Your task to perform on an android device: open app "Pluto TV - Live TV and Movies" (install if not already installed), go to login, and select forgot password Image 0: 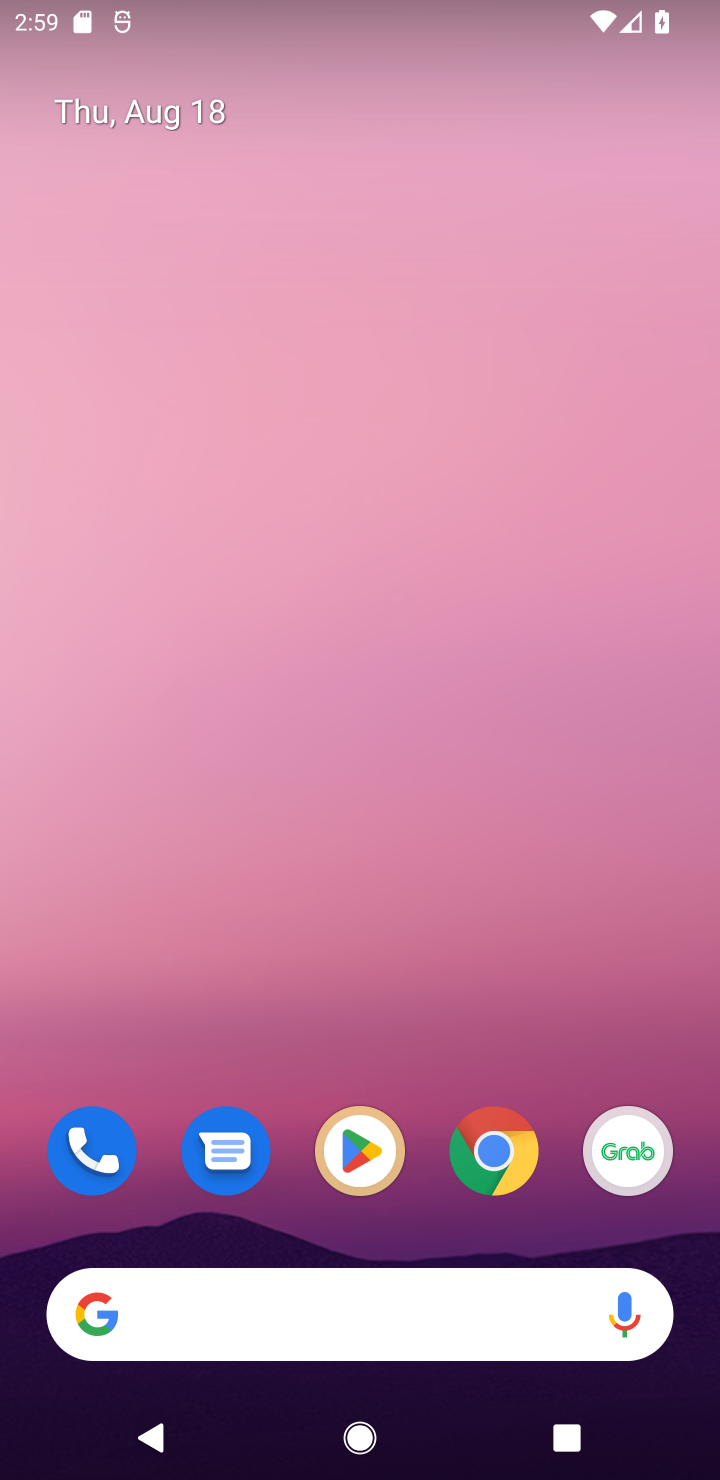
Step 0: click (356, 1283)
Your task to perform on an android device: open app "Pluto TV - Live TV and Movies" (install if not already installed), go to login, and select forgot password Image 1: 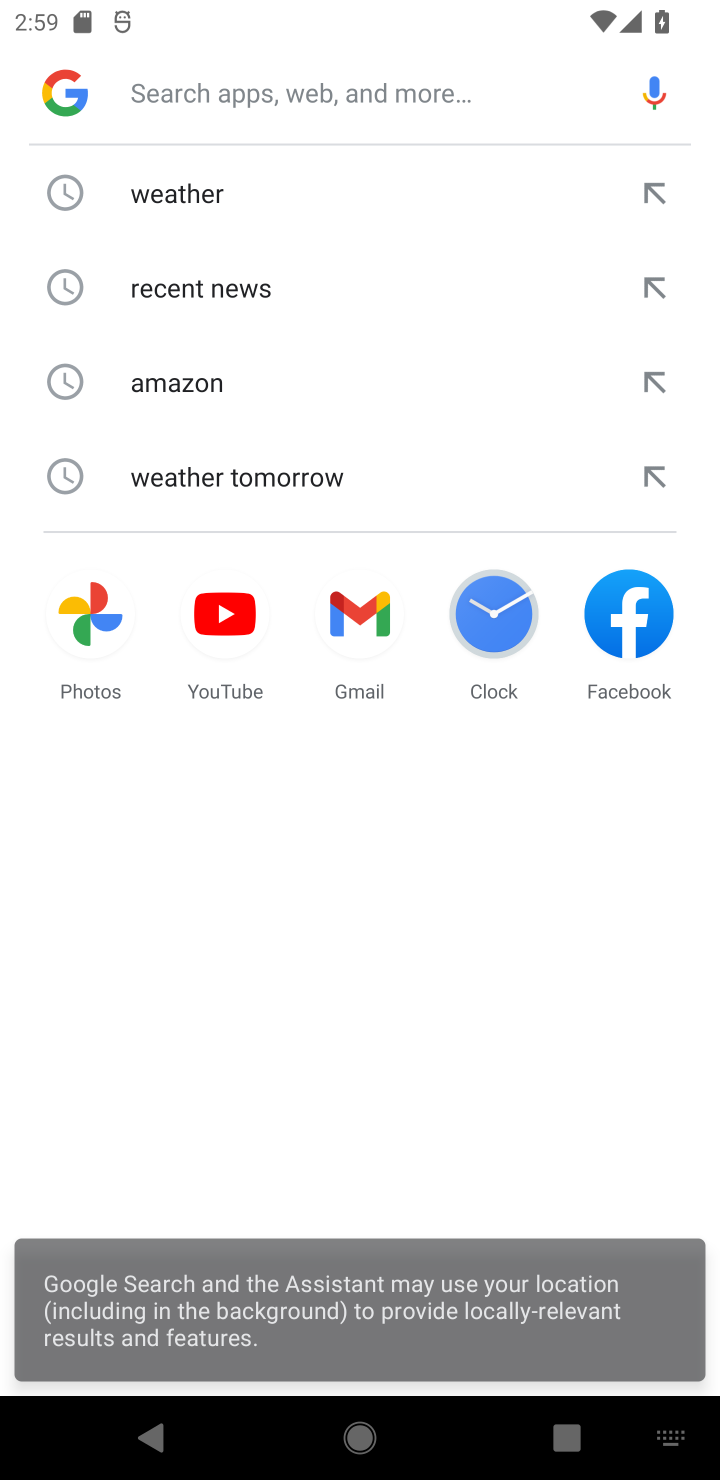
Step 1: type "pluto"
Your task to perform on an android device: open app "Pluto TV - Live TV and Movies" (install if not already installed), go to login, and select forgot password Image 2: 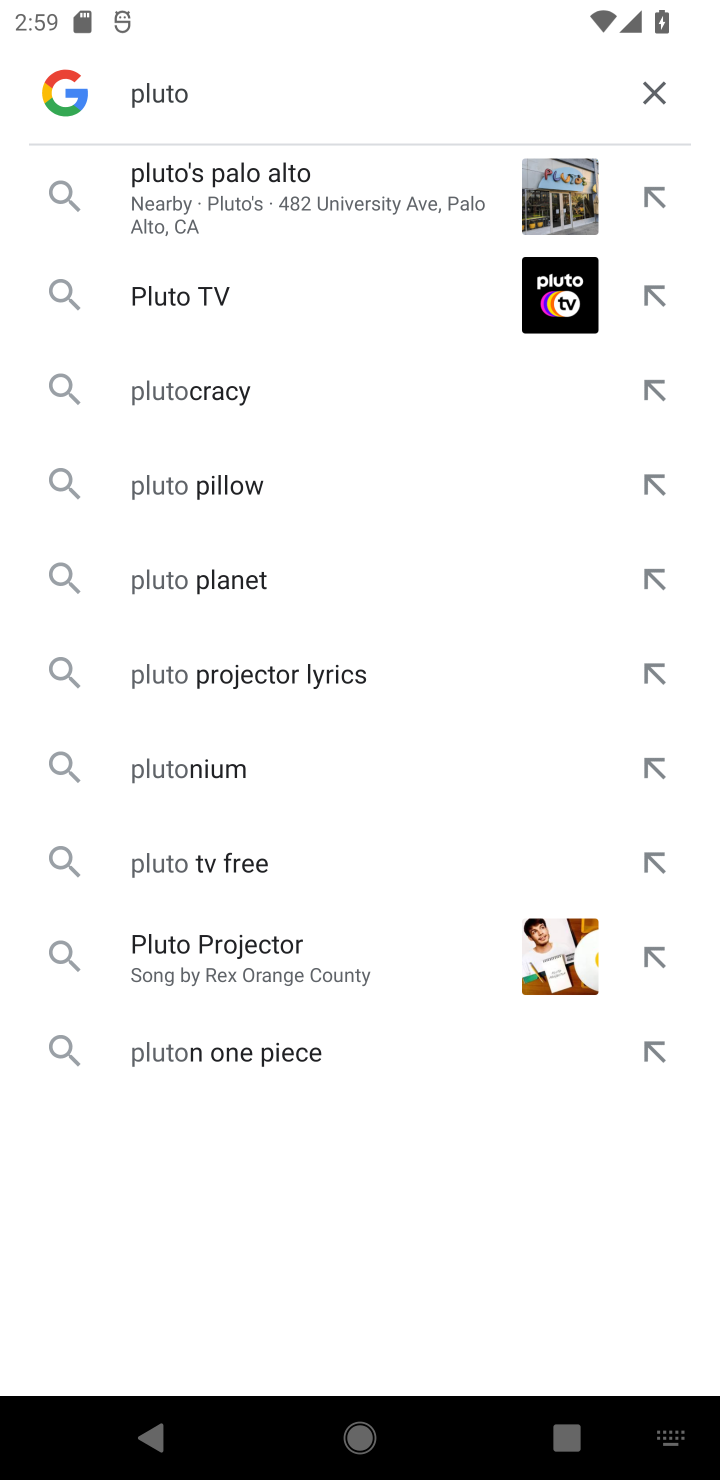
Step 2: click (335, 218)
Your task to perform on an android device: open app "Pluto TV - Live TV and Movies" (install if not already installed), go to login, and select forgot password Image 3: 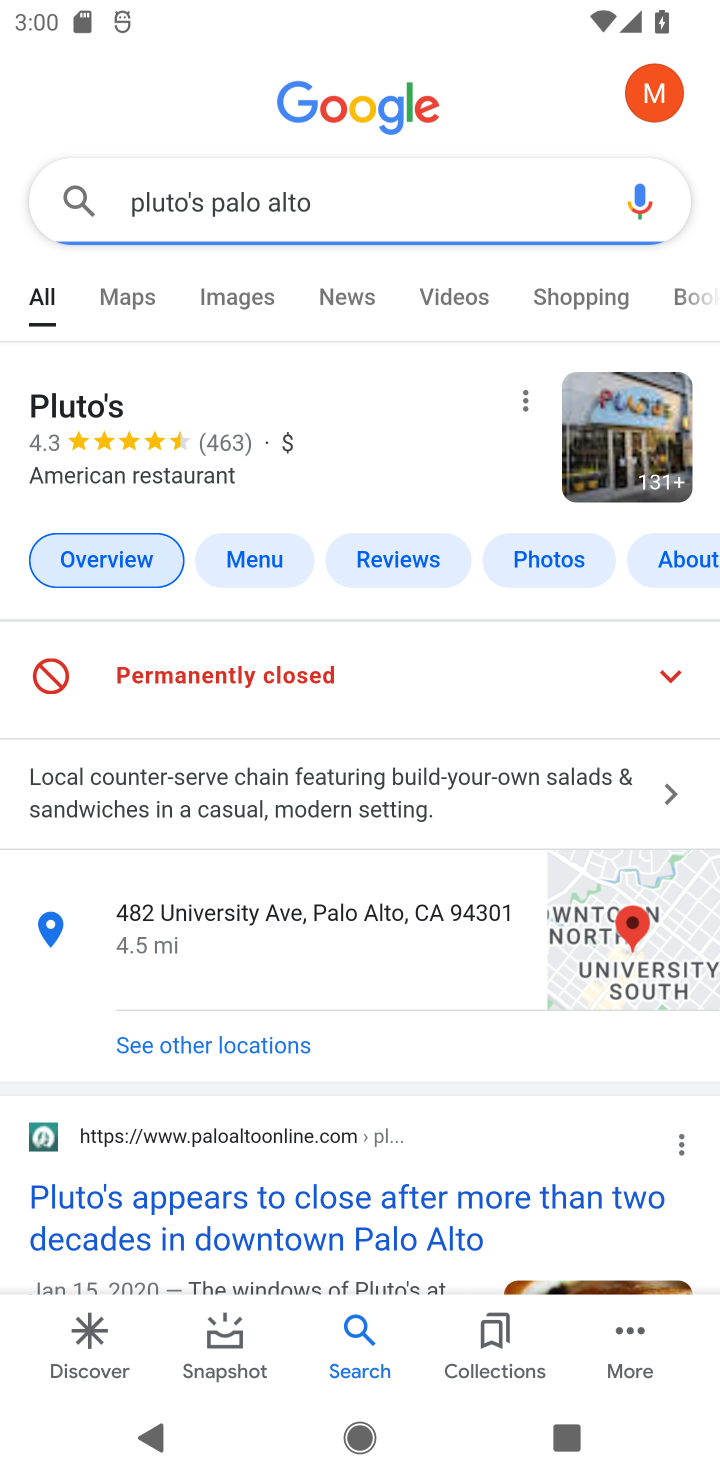
Step 3: press home button
Your task to perform on an android device: open app "Pluto TV - Live TV and Movies" (install if not already installed), go to login, and select forgot password Image 4: 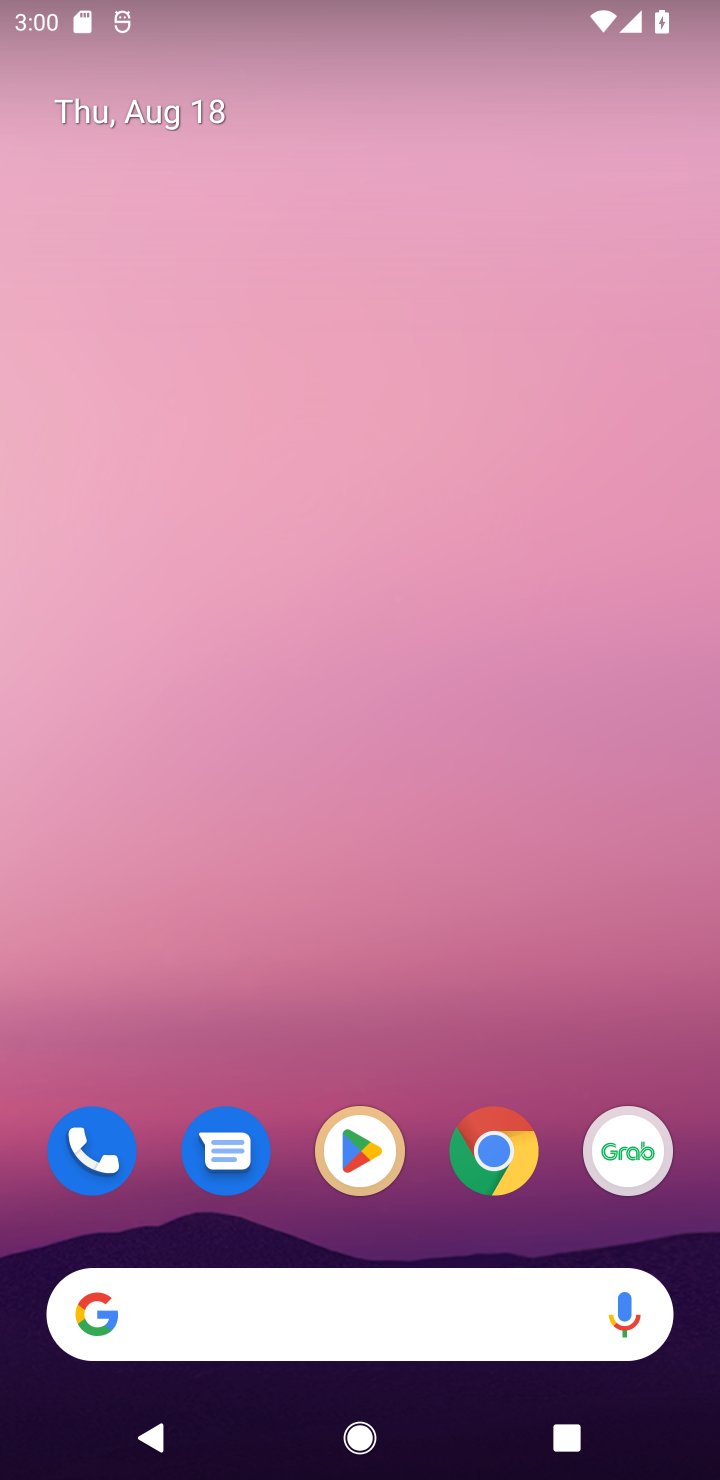
Step 4: click (366, 1153)
Your task to perform on an android device: open app "Pluto TV - Live TV and Movies" (install if not already installed), go to login, and select forgot password Image 5: 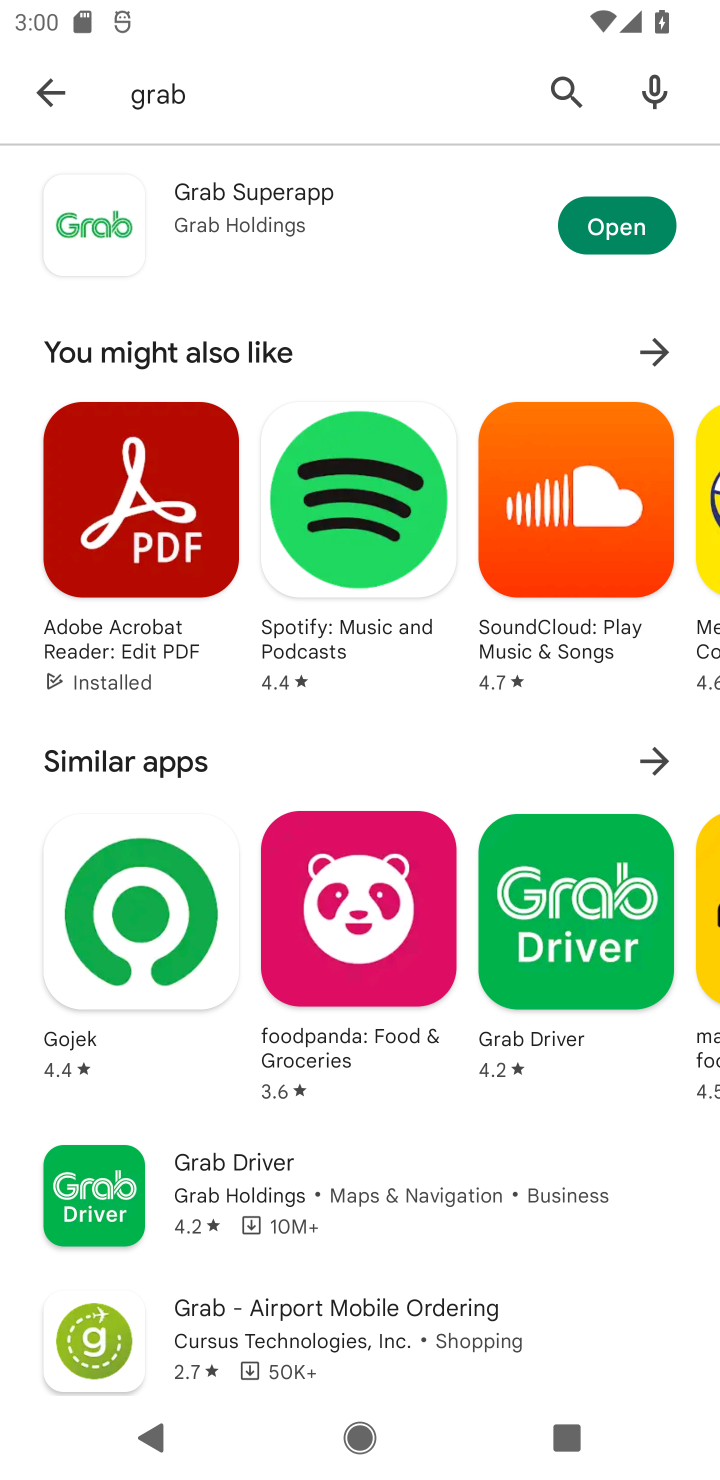
Step 5: click (583, 106)
Your task to perform on an android device: open app "Pluto TV - Live TV and Movies" (install if not already installed), go to login, and select forgot password Image 6: 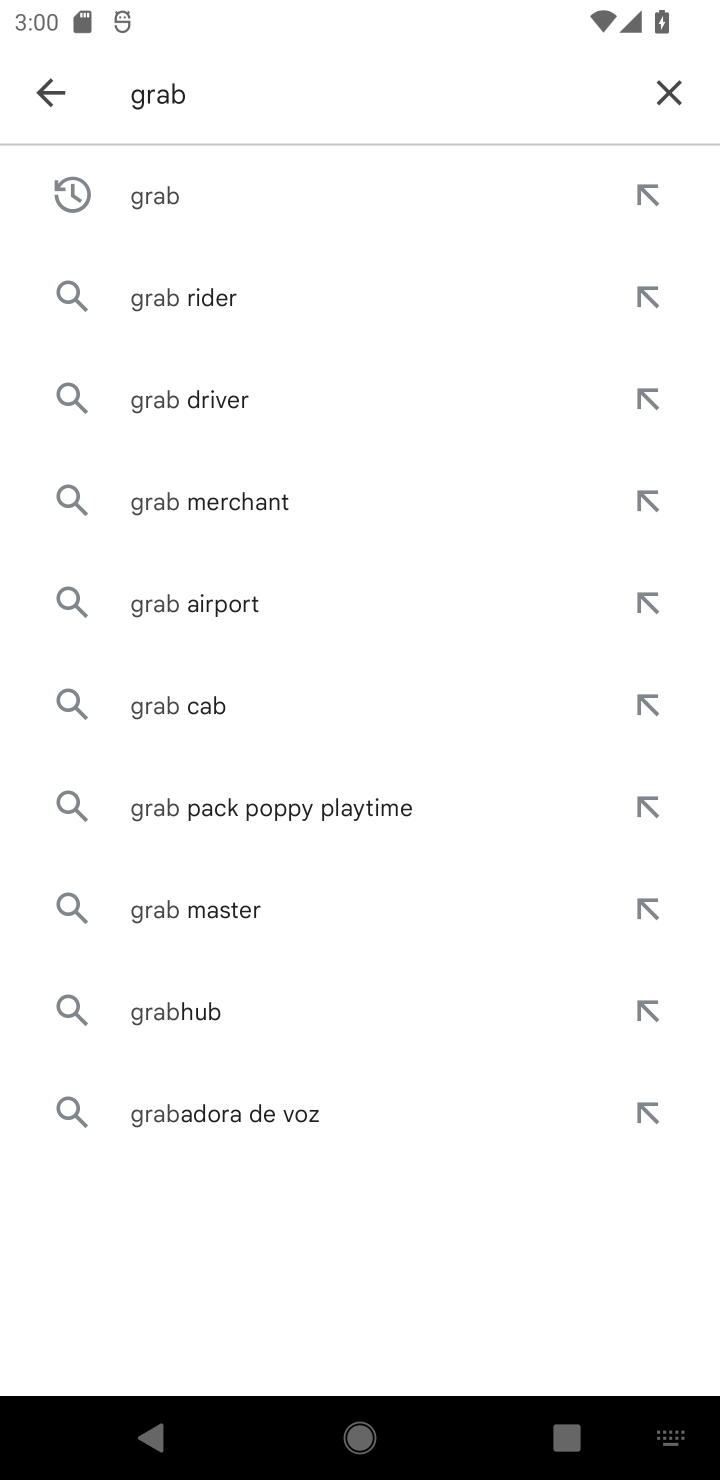
Step 6: click (672, 92)
Your task to perform on an android device: open app "Pluto TV - Live TV and Movies" (install if not already installed), go to login, and select forgot password Image 7: 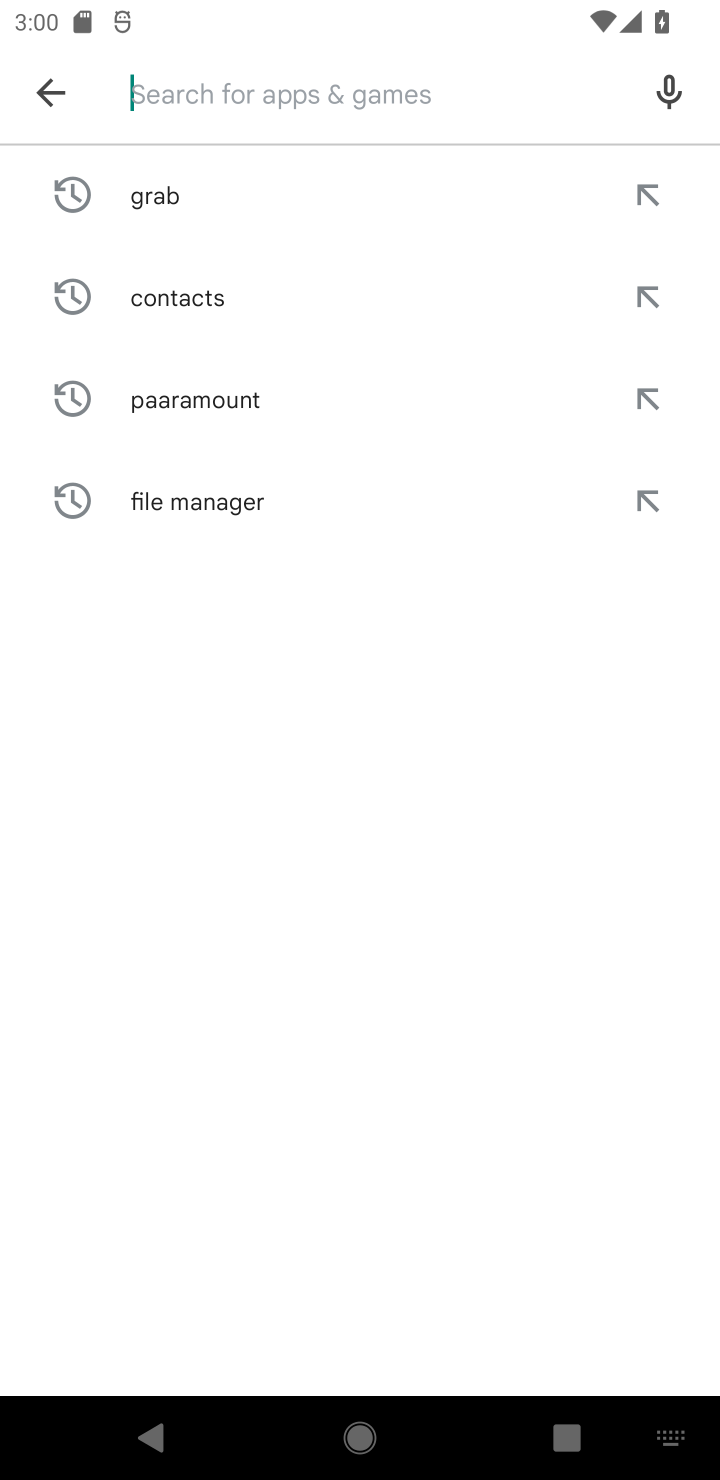
Step 7: type "pluto"
Your task to perform on an android device: open app "Pluto TV - Live TV and Movies" (install if not already installed), go to login, and select forgot password Image 8: 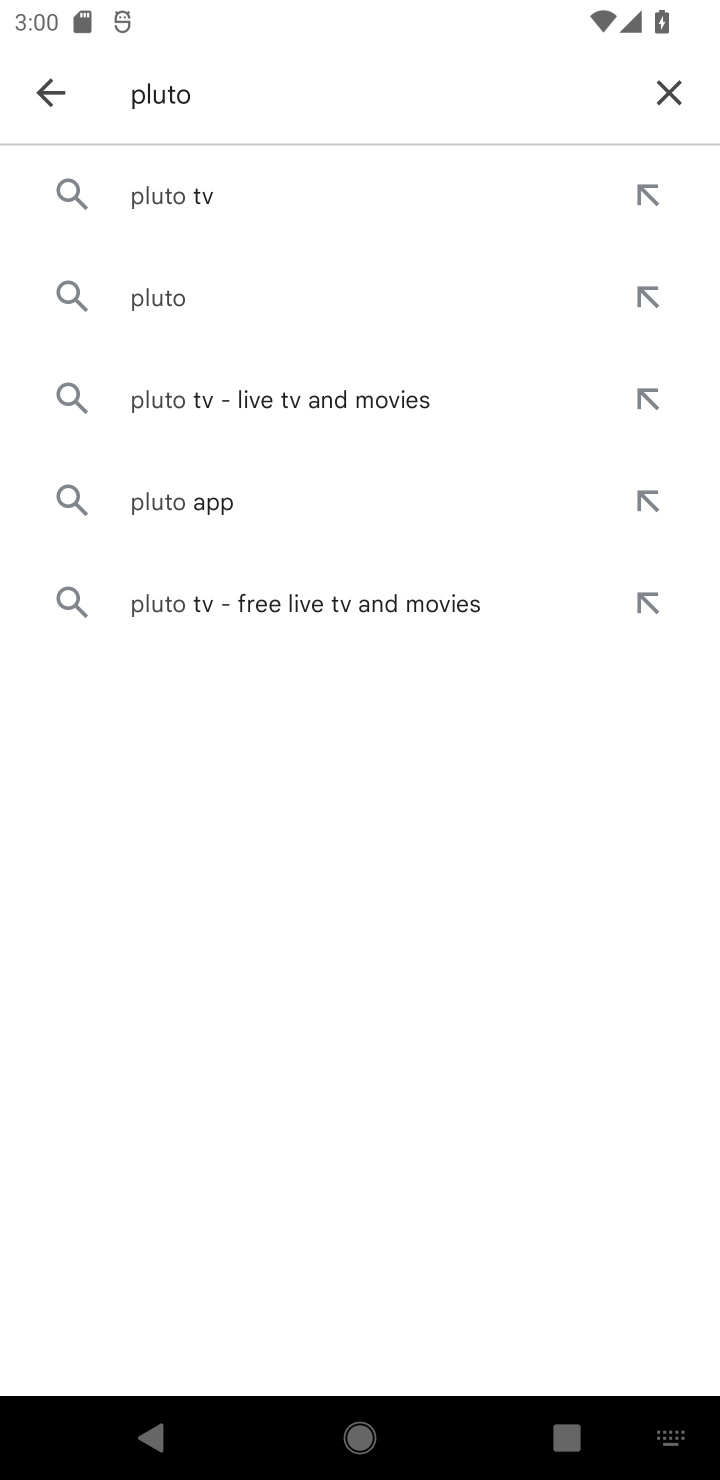
Step 8: click (225, 207)
Your task to perform on an android device: open app "Pluto TV - Live TV and Movies" (install if not already installed), go to login, and select forgot password Image 9: 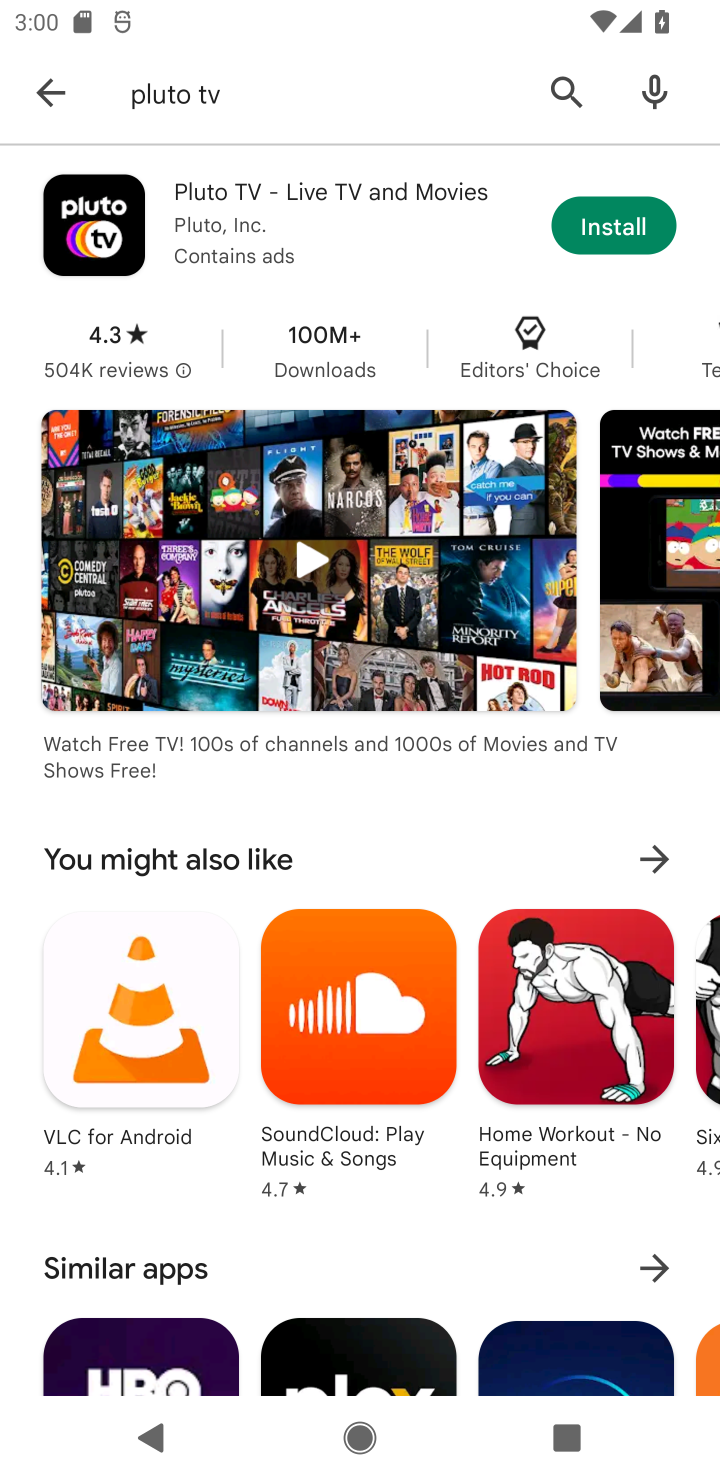
Step 9: click (639, 216)
Your task to perform on an android device: open app "Pluto TV - Live TV and Movies" (install if not already installed), go to login, and select forgot password Image 10: 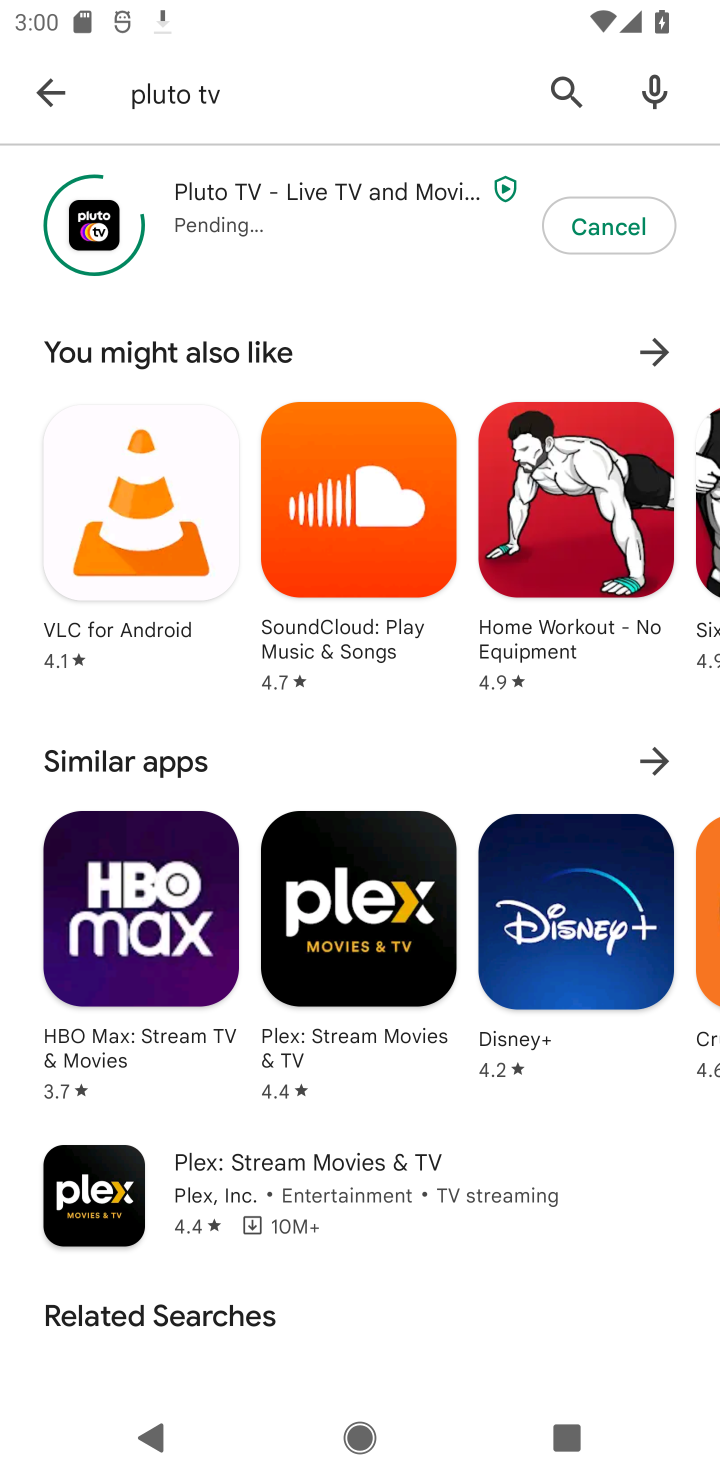
Step 10: task complete